Your task to perform on an android device: Go to ESPN.com Image 0: 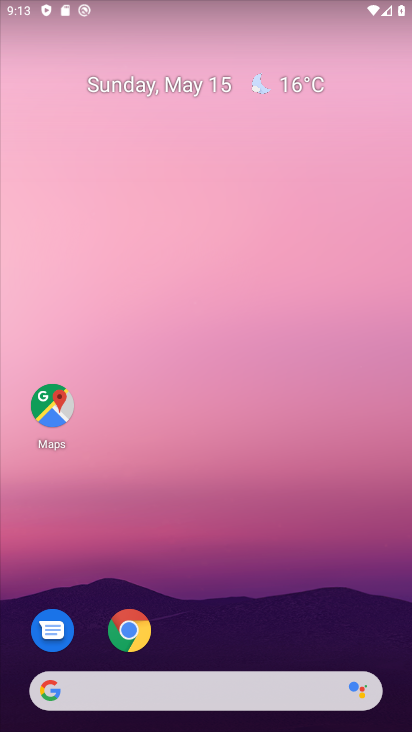
Step 0: click (126, 635)
Your task to perform on an android device: Go to ESPN.com Image 1: 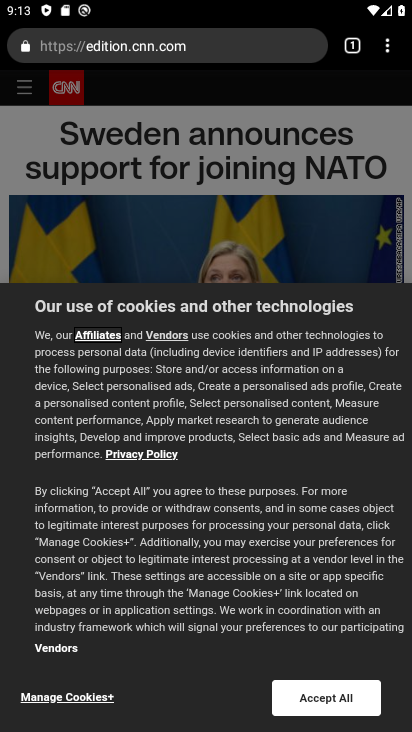
Step 1: click (321, 706)
Your task to perform on an android device: Go to ESPN.com Image 2: 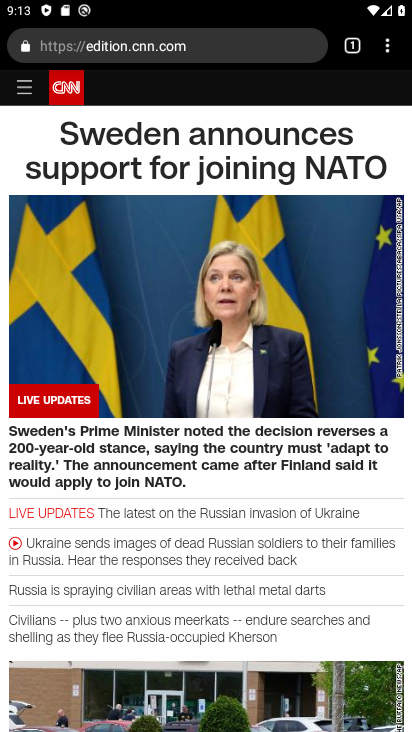
Step 2: click (339, 40)
Your task to perform on an android device: Go to ESPN.com Image 3: 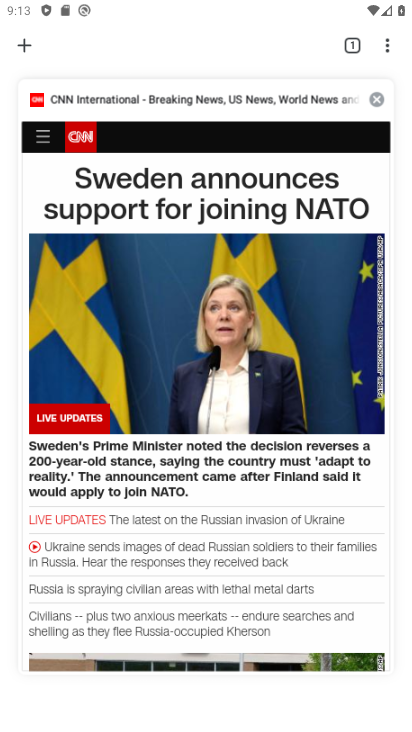
Step 3: click (23, 39)
Your task to perform on an android device: Go to ESPN.com Image 4: 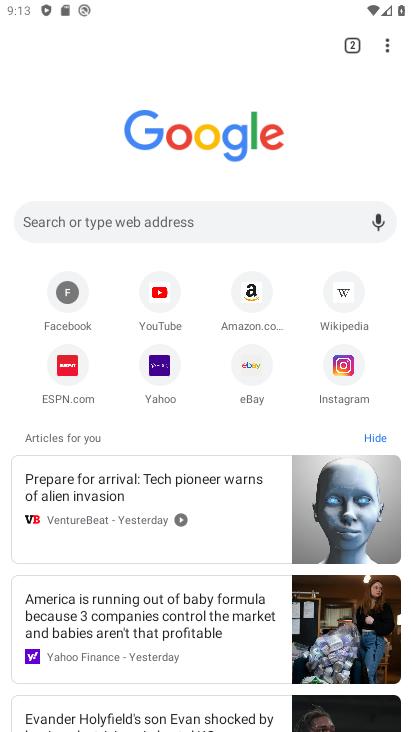
Step 4: click (68, 371)
Your task to perform on an android device: Go to ESPN.com Image 5: 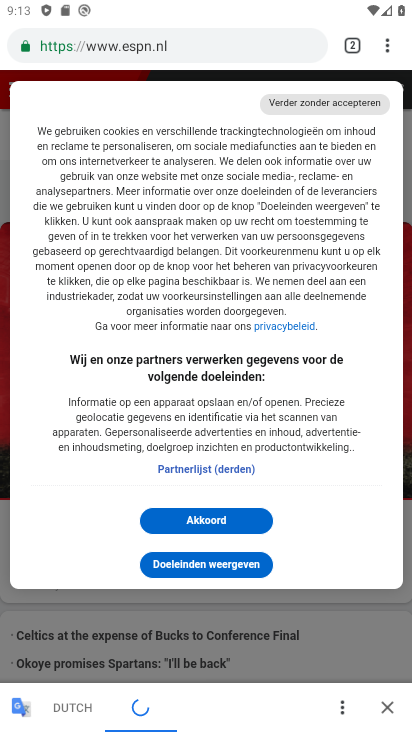
Step 5: task complete